Your task to perform on an android device: add a label to a message in the gmail app Image 0: 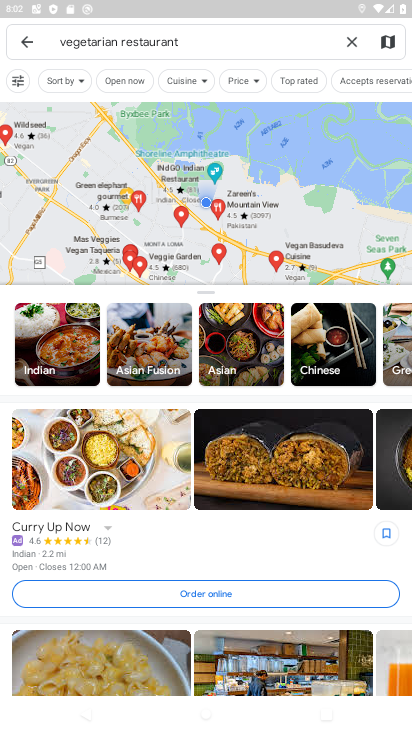
Step 0: press back button
Your task to perform on an android device: add a label to a message in the gmail app Image 1: 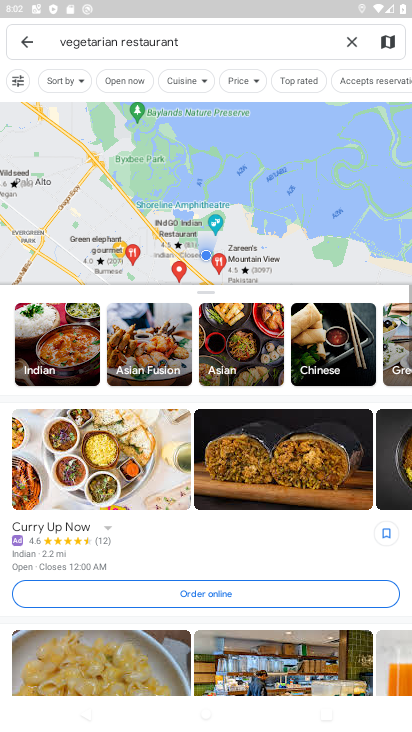
Step 1: press back button
Your task to perform on an android device: add a label to a message in the gmail app Image 2: 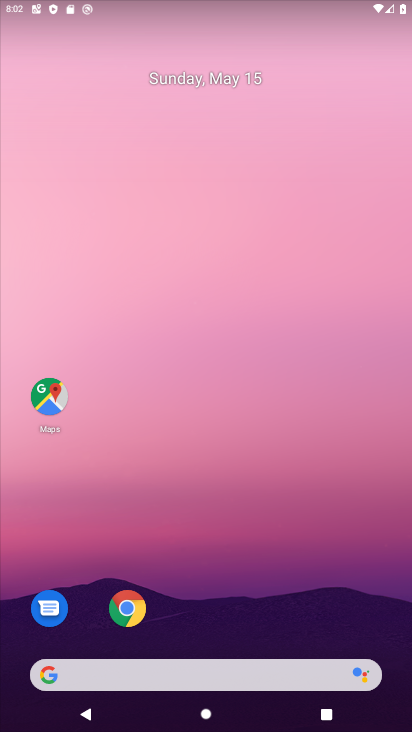
Step 2: press back button
Your task to perform on an android device: add a label to a message in the gmail app Image 3: 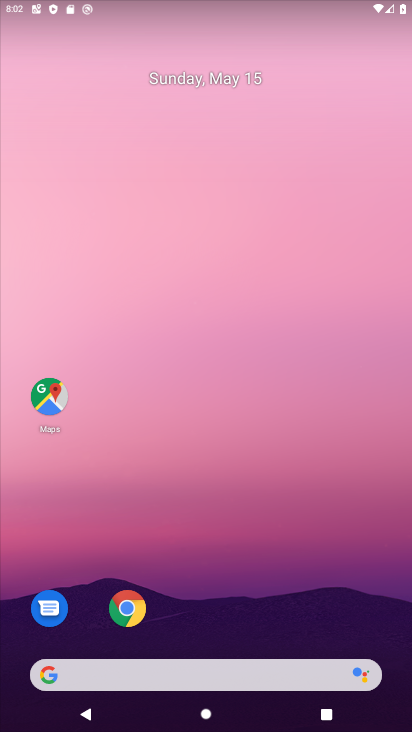
Step 3: click (28, 45)
Your task to perform on an android device: add a label to a message in the gmail app Image 4: 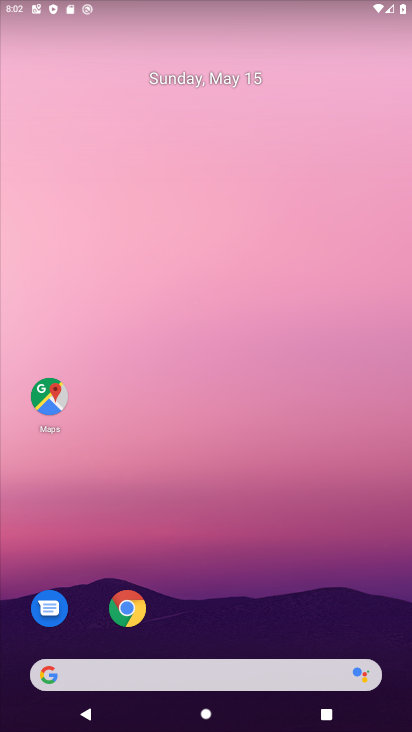
Step 4: press home button
Your task to perform on an android device: add a label to a message in the gmail app Image 5: 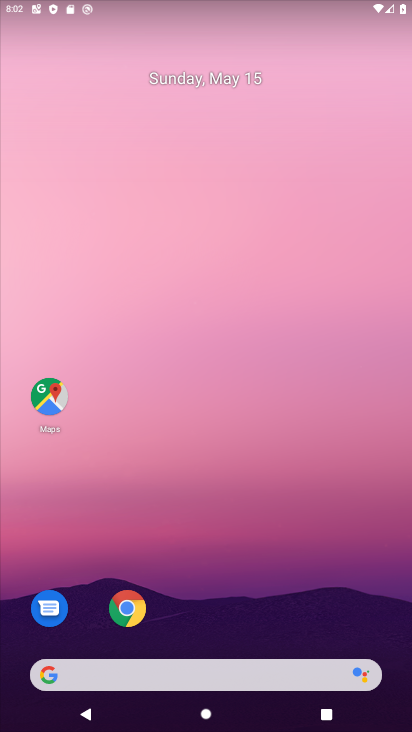
Step 5: drag from (289, 619) to (57, 138)
Your task to perform on an android device: add a label to a message in the gmail app Image 6: 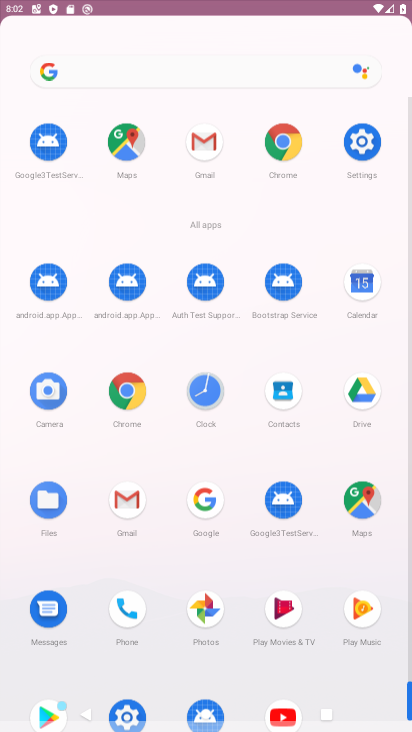
Step 6: drag from (243, 79) to (144, 96)
Your task to perform on an android device: add a label to a message in the gmail app Image 7: 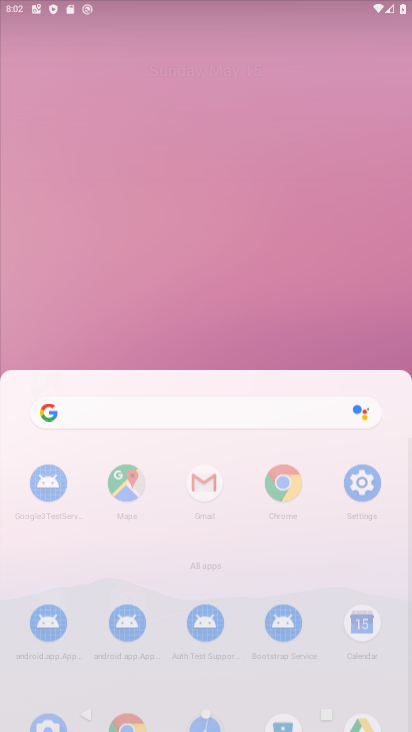
Step 7: drag from (159, 275) to (99, 10)
Your task to perform on an android device: add a label to a message in the gmail app Image 8: 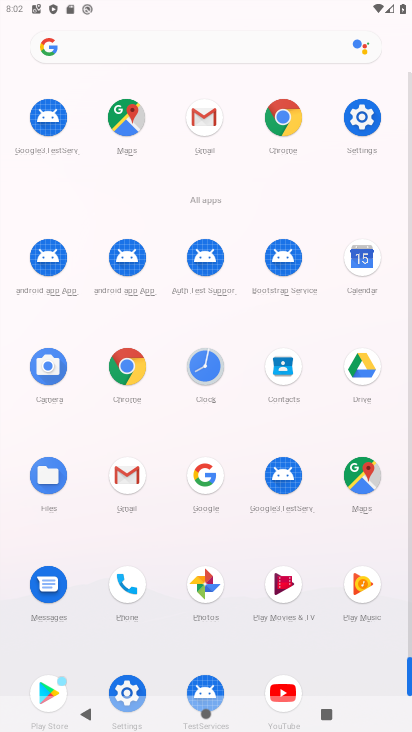
Step 8: drag from (256, 453) to (184, 27)
Your task to perform on an android device: add a label to a message in the gmail app Image 9: 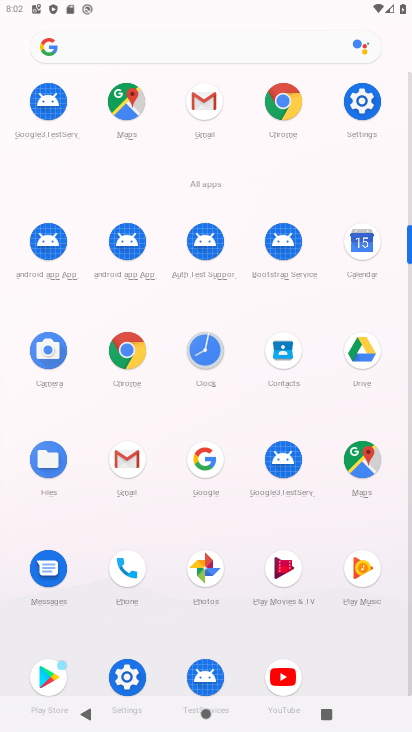
Step 9: click (129, 455)
Your task to perform on an android device: add a label to a message in the gmail app Image 10: 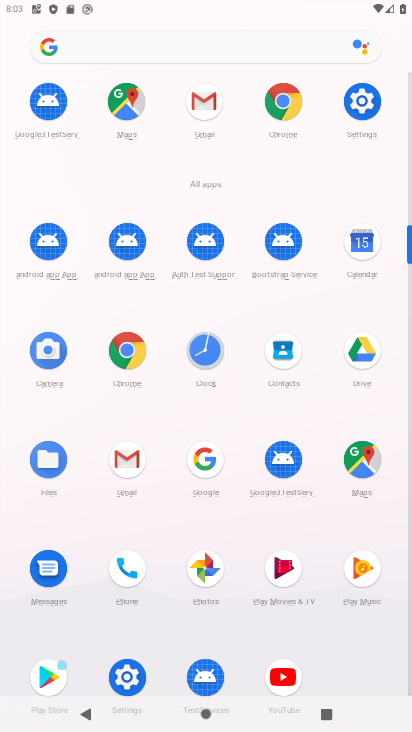
Step 10: click (129, 455)
Your task to perform on an android device: add a label to a message in the gmail app Image 11: 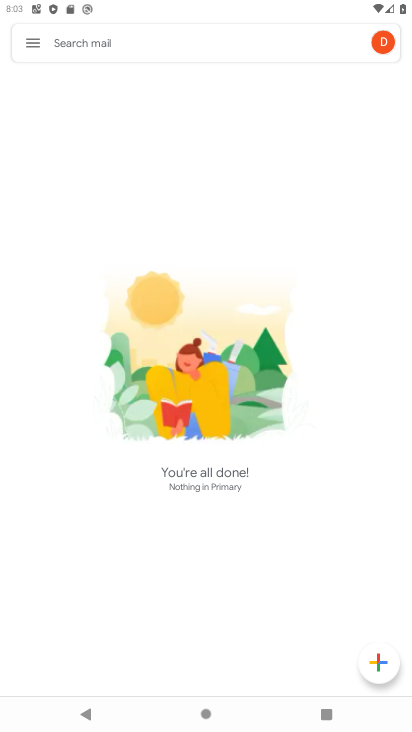
Step 11: click (28, 42)
Your task to perform on an android device: add a label to a message in the gmail app Image 12: 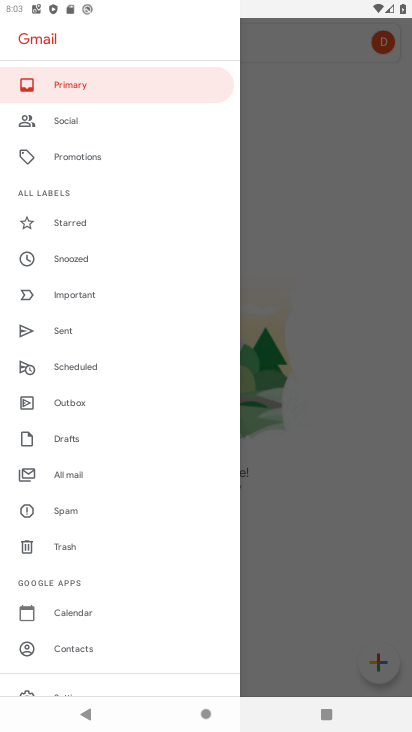
Step 12: drag from (75, 415) to (50, 111)
Your task to perform on an android device: add a label to a message in the gmail app Image 13: 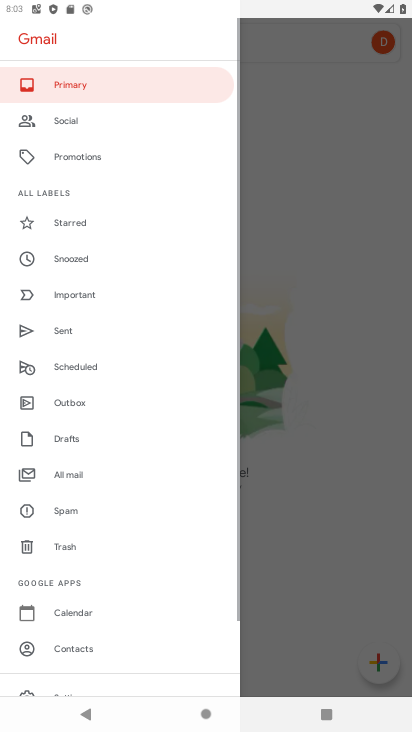
Step 13: click (67, 475)
Your task to perform on an android device: add a label to a message in the gmail app Image 14: 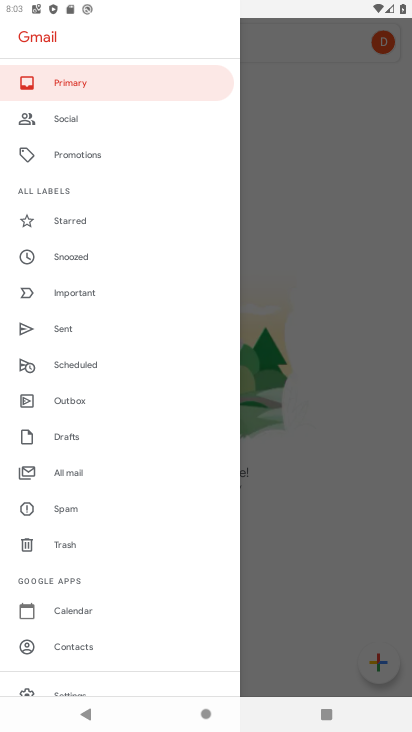
Step 14: click (66, 467)
Your task to perform on an android device: add a label to a message in the gmail app Image 15: 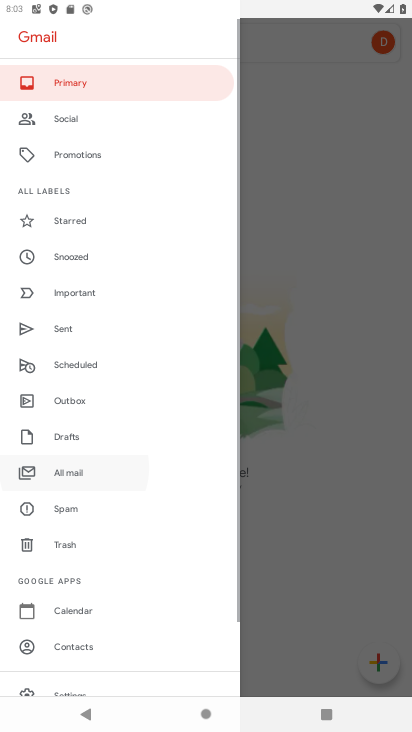
Step 15: click (65, 463)
Your task to perform on an android device: add a label to a message in the gmail app Image 16: 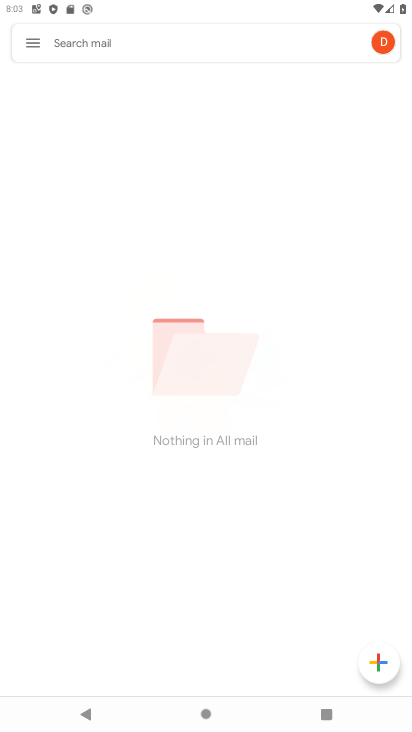
Step 16: click (60, 457)
Your task to perform on an android device: add a label to a message in the gmail app Image 17: 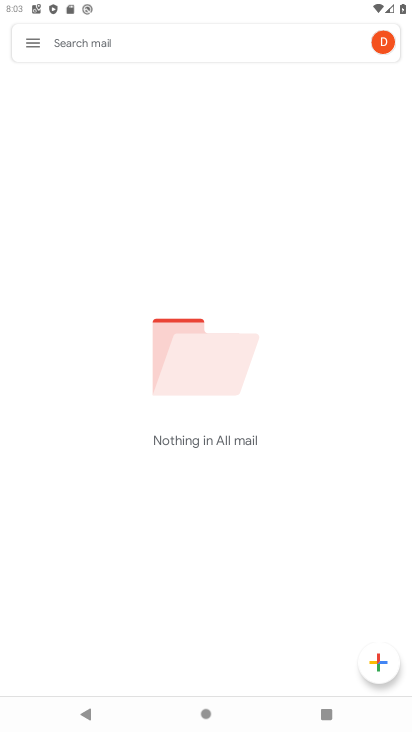
Step 17: task complete